Your task to perform on an android device: see tabs open on other devices in the chrome app Image 0: 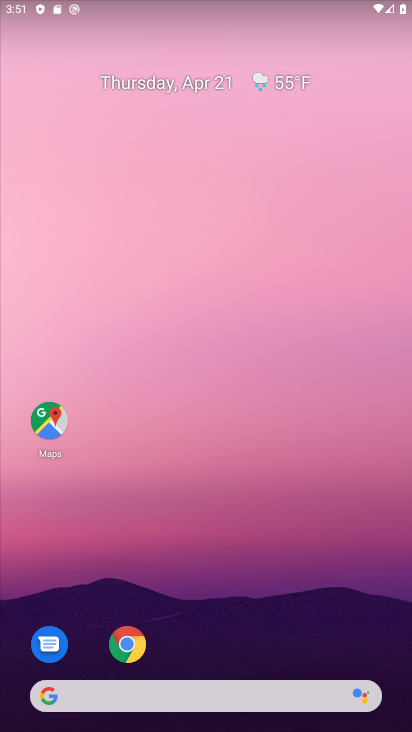
Step 0: drag from (101, 697) to (273, 148)
Your task to perform on an android device: see tabs open on other devices in the chrome app Image 1: 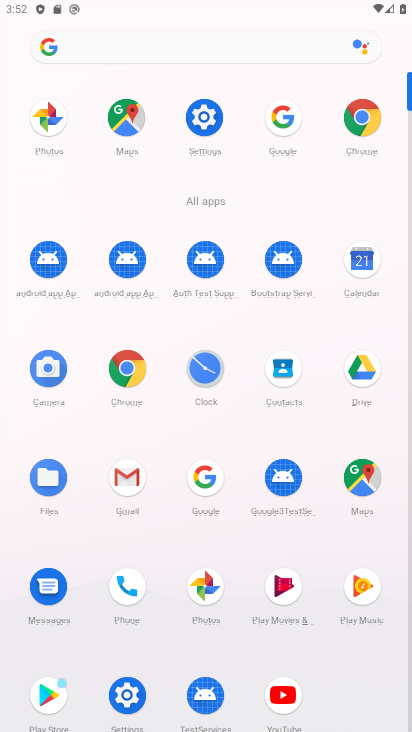
Step 1: click (358, 127)
Your task to perform on an android device: see tabs open on other devices in the chrome app Image 2: 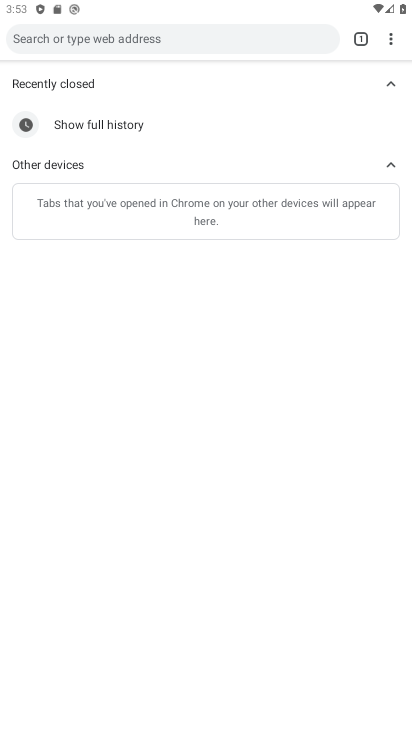
Step 2: click (390, 46)
Your task to perform on an android device: see tabs open on other devices in the chrome app Image 3: 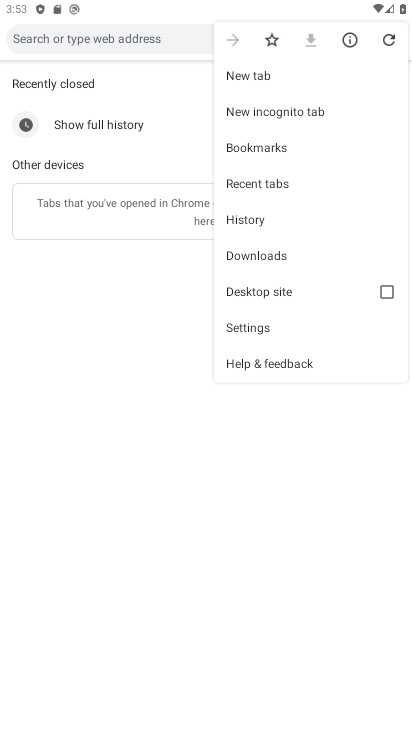
Step 3: click (272, 184)
Your task to perform on an android device: see tabs open on other devices in the chrome app Image 4: 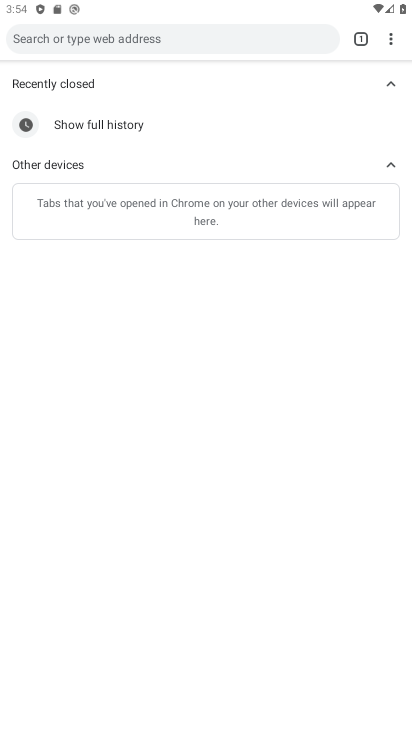
Step 4: task complete